Your task to perform on an android device: Go to calendar. Show me events next week Image 0: 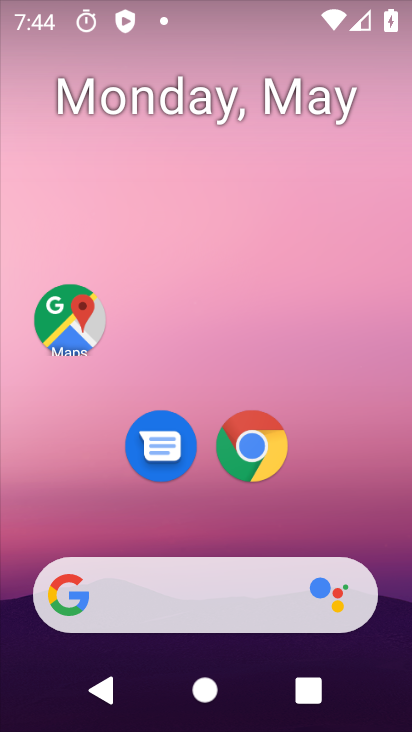
Step 0: drag from (364, 539) to (5, 318)
Your task to perform on an android device: Go to calendar. Show me events next week Image 1: 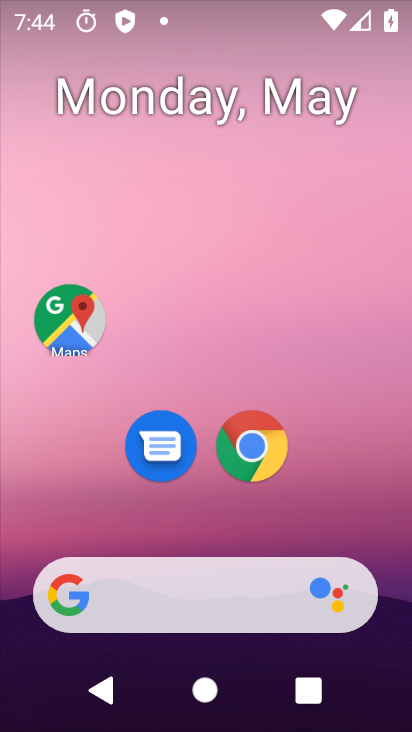
Step 1: drag from (353, 525) to (261, 6)
Your task to perform on an android device: Go to calendar. Show me events next week Image 2: 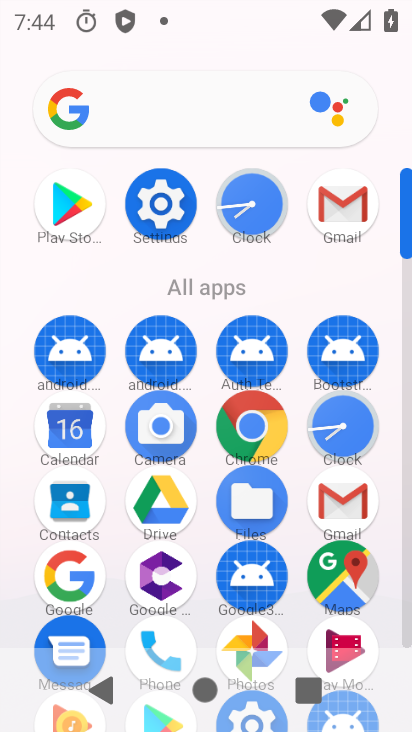
Step 2: click (77, 435)
Your task to perform on an android device: Go to calendar. Show me events next week Image 3: 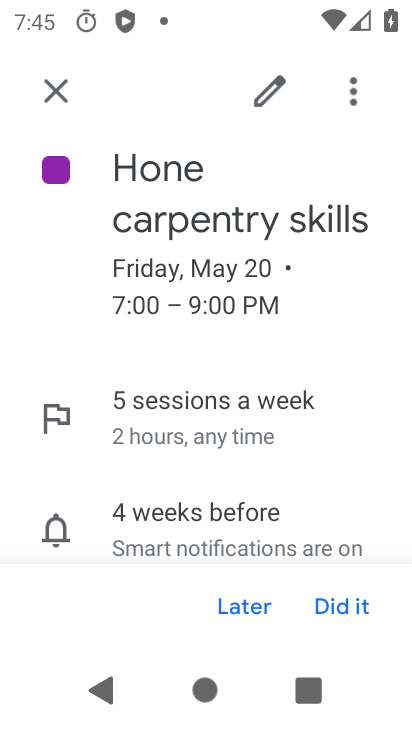
Step 3: click (61, 96)
Your task to perform on an android device: Go to calendar. Show me events next week Image 4: 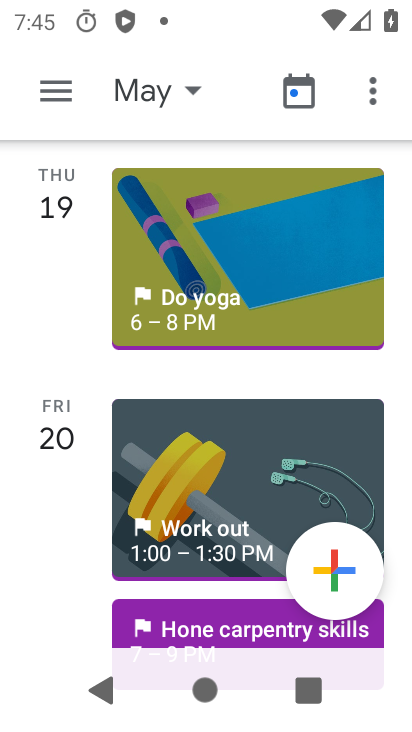
Step 4: click (61, 96)
Your task to perform on an android device: Go to calendar. Show me events next week Image 5: 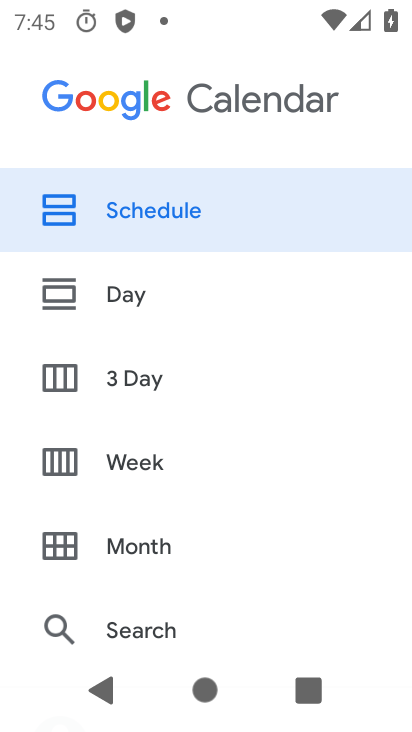
Step 5: drag from (227, 554) to (196, 129)
Your task to perform on an android device: Go to calendar. Show me events next week Image 6: 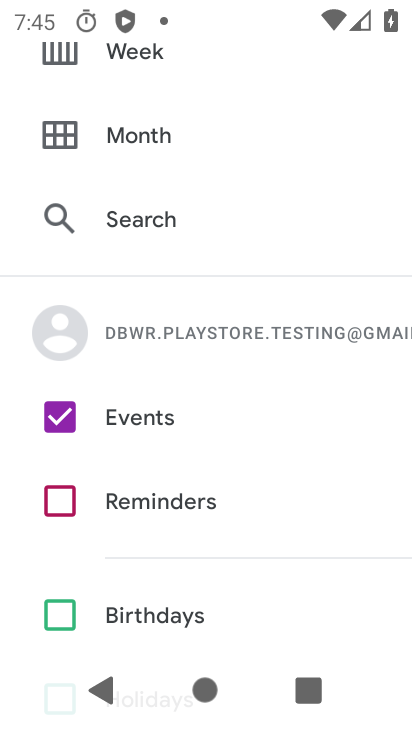
Step 6: drag from (186, 145) to (214, 433)
Your task to perform on an android device: Go to calendar. Show me events next week Image 7: 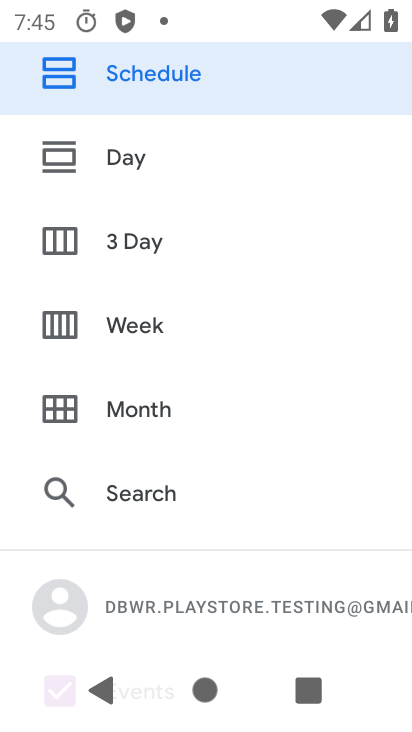
Step 7: click (126, 328)
Your task to perform on an android device: Go to calendar. Show me events next week Image 8: 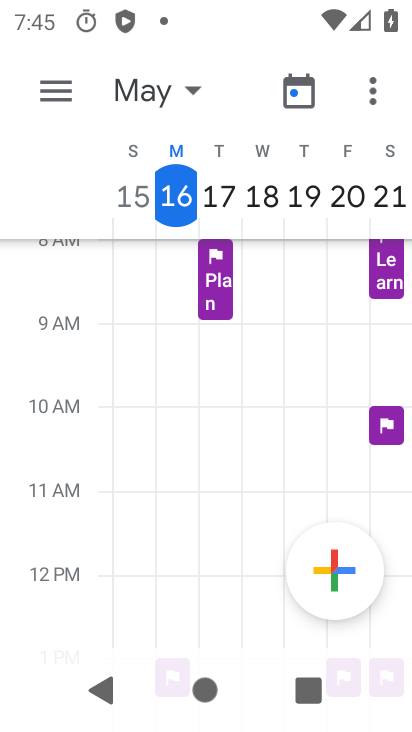
Step 8: task complete